Your task to perform on an android device: turn on wifi Image 0: 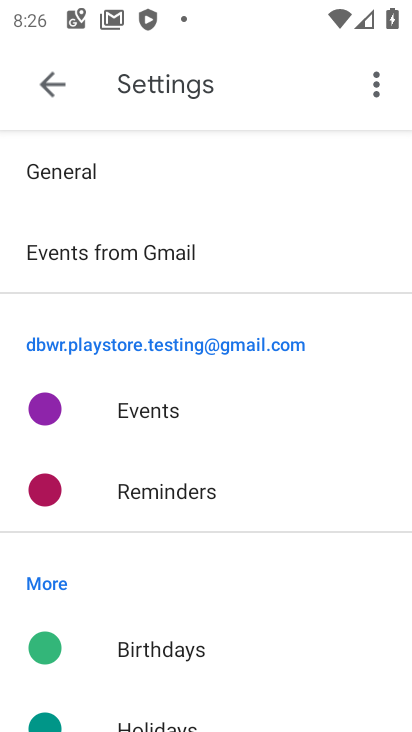
Step 0: press home button
Your task to perform on an android device: turn on wifi Image 1: 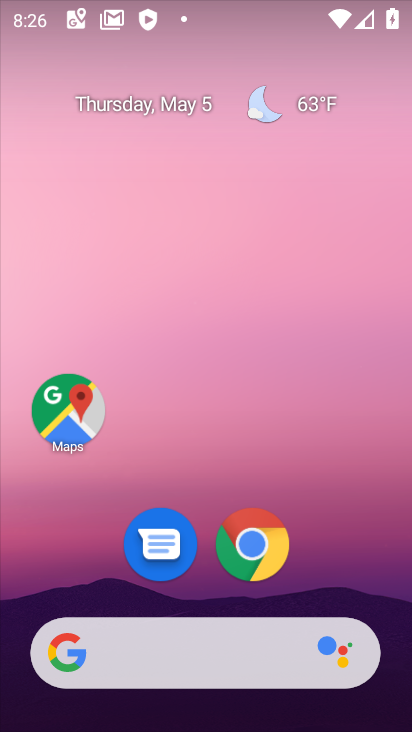
Step 1: drag from (394, 622) to (270, 7)
Your task to perform on an android device: turn on wifi Image 2: 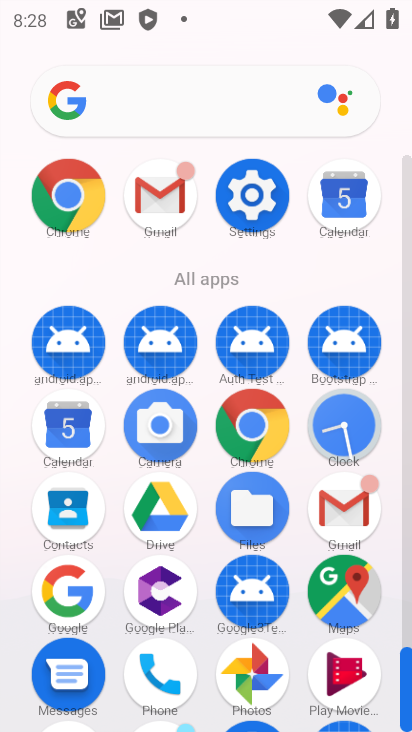
Step 2: click (263, 229)
Your task to perform on an android device: turn on wifi Image 3: 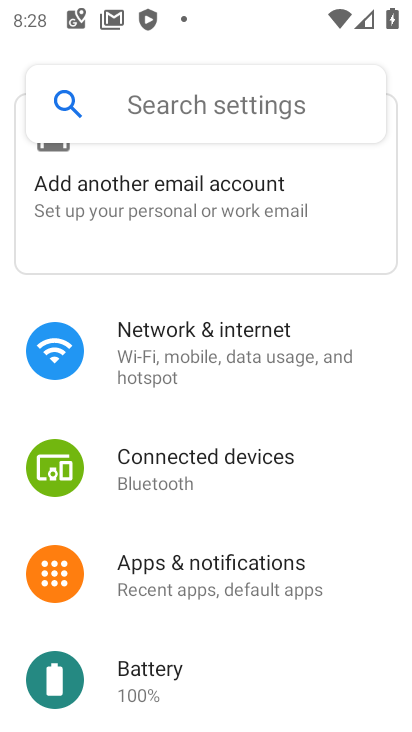
Step 3: click (214, 366)
Your task to perform on an android device: turn on wifi Image 4: 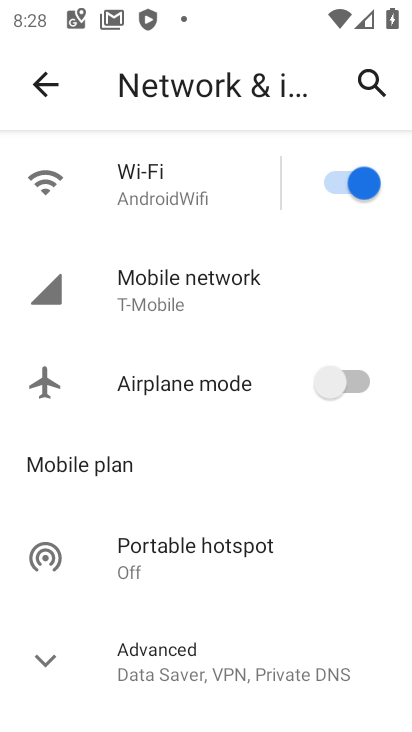
Step 4: task complete